Your task to perform on an android device: turn on javascript in the chrome app Image 0: 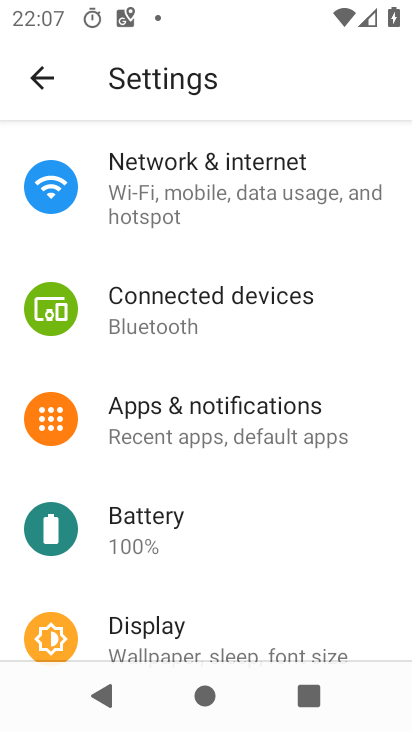
Step 0: click (243, 421)
Your task to perform on an android device: turn on javascript in the chrome app Image 1: 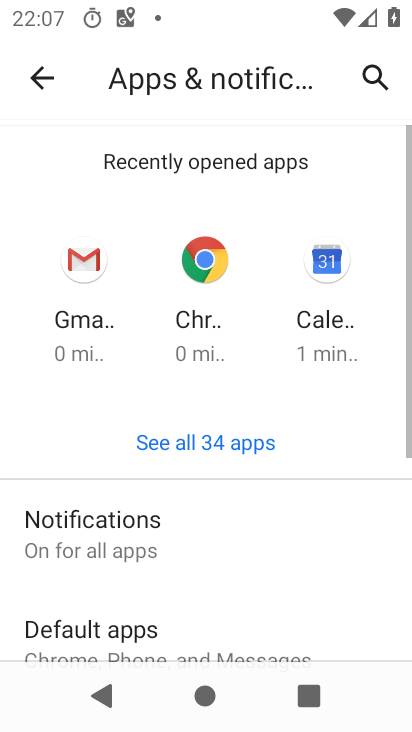
Step 1: press home button
Your task to perform on an android device: turn on javascript in the chrome app Image 2: 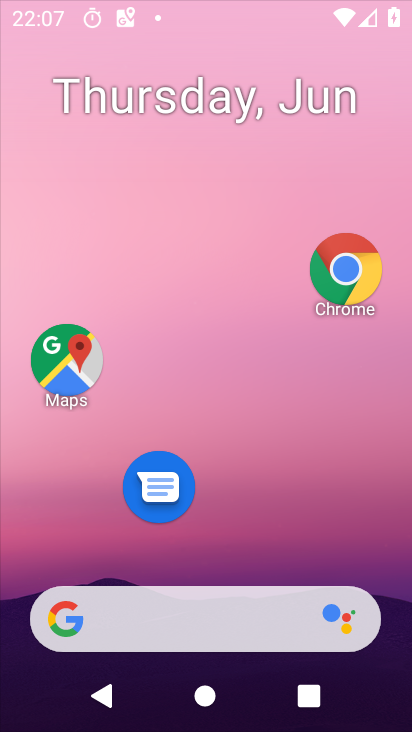
Step 2: drag from (231, 534) to (1, 5)
Your task to perform on an android device: turn on javascript in the chrome app Image 3: 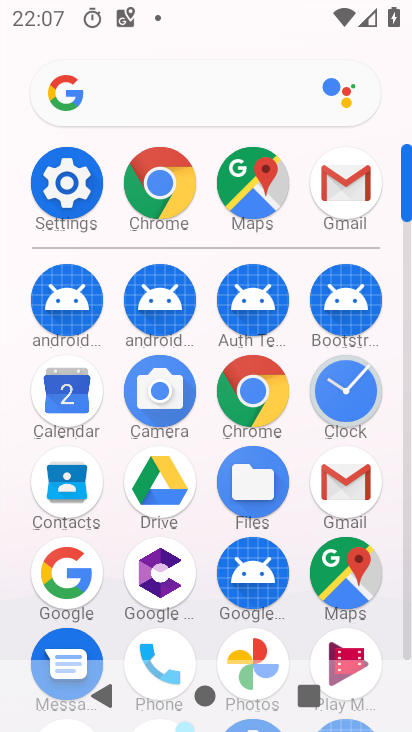
Step 3: click (255, 387)
Your task to perform on an android device: turn on javascript in the chrome app Image 4: 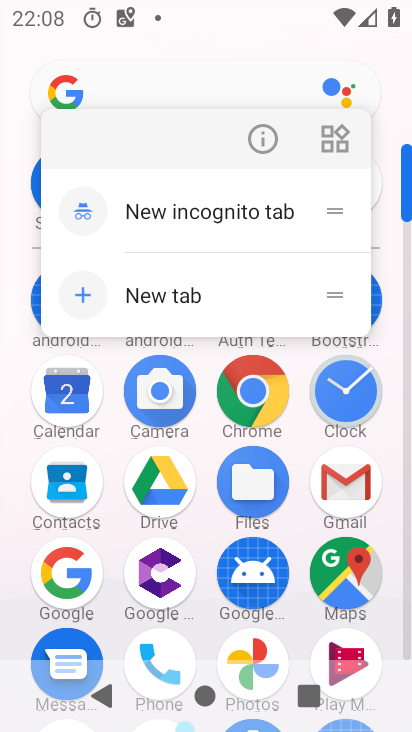
Step 4: click (256, 155)
Your task to perform on an android device: turn on javascript in the chrome app Image 5: 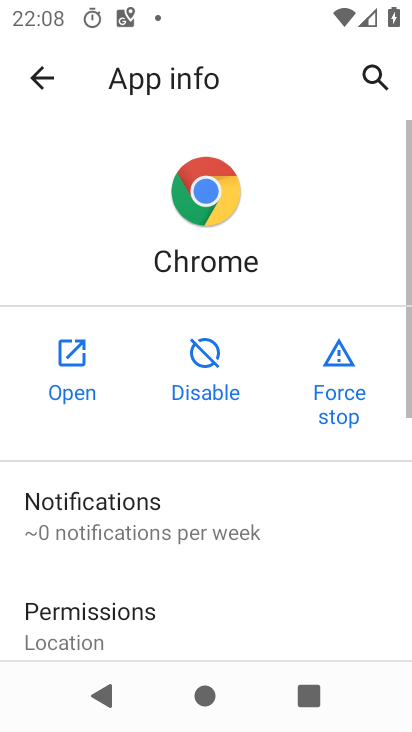
Step 5: click (86, 360)
Your task to perform on an android device: turn on javascript in the chrome app Image 6: 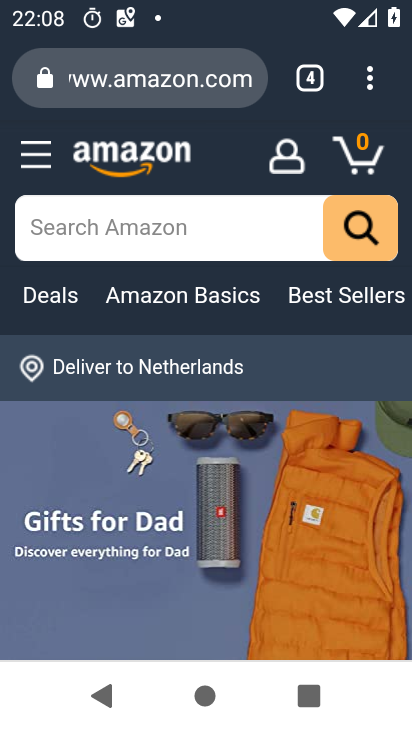
Step 6: click (377, 66)
Your task to perform on an android device: turn on javascript in the chrome app Image 7: 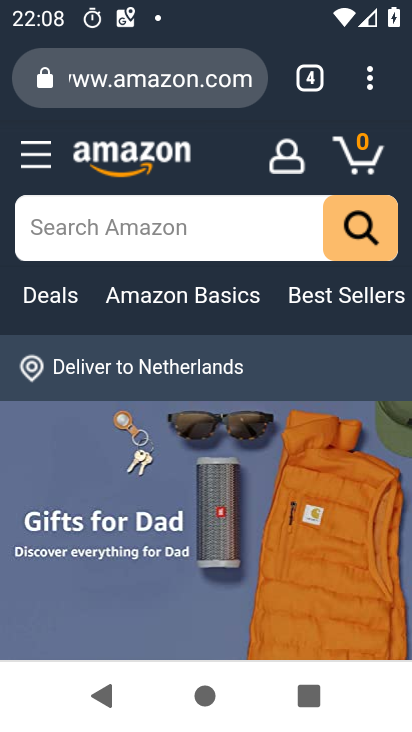
Step 7: drag from (367, 88) to (148, 545)
Your task to perform on an android device: turn on javascript in the chrome app Image 8: 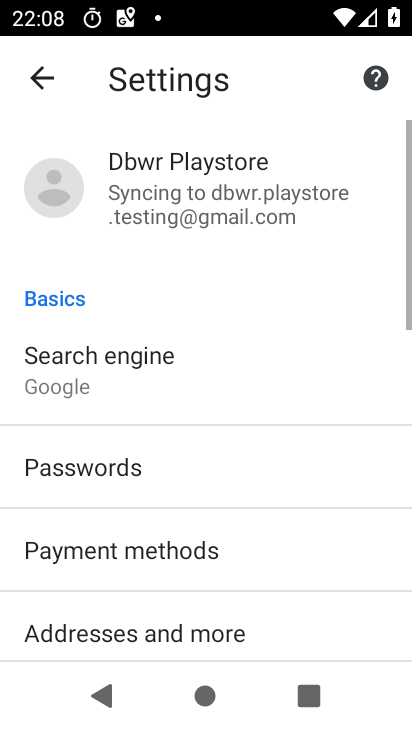
Step 8: drag from (169, 547) to (315, 207)
Your task to perform on an android device: turn on javascript in the chrome app Image 9: 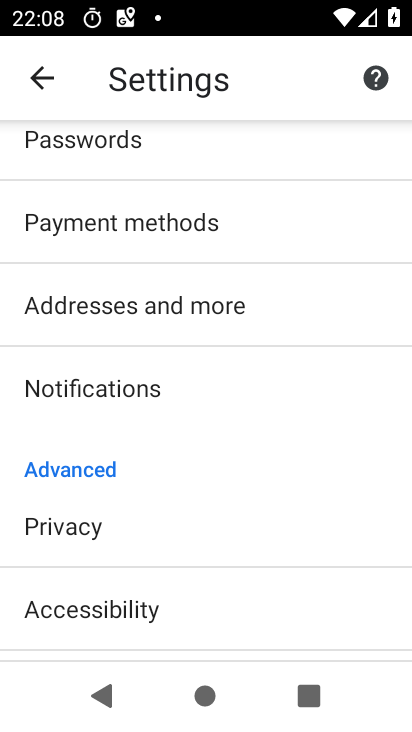
Step 9: drag from (186, 561) to (268, 217)
Your task to perform on an android device: turn on javascript in the chrome app Image 10: 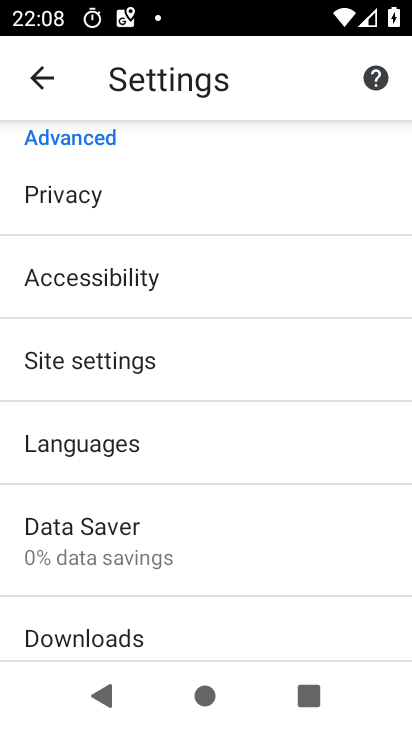
Step 10: click (197, 340)
Your task to perform on an android device: turn on javascript in the chrome app Image 11: 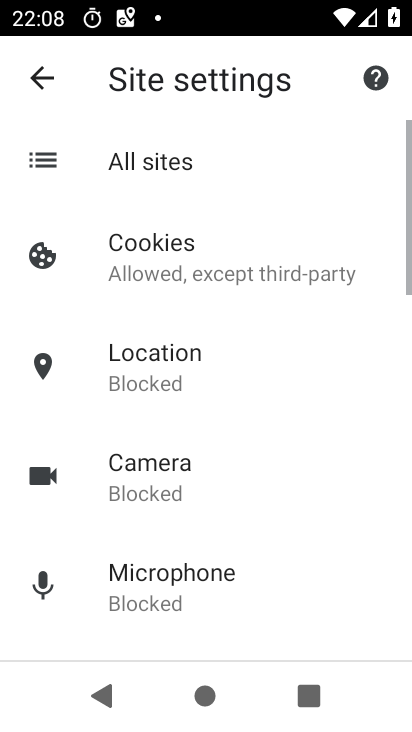
Step 11: drag from (159, 538) to (287, 3)
Your task to perform on an android device: turn on javascript in the chrome app Image 12: 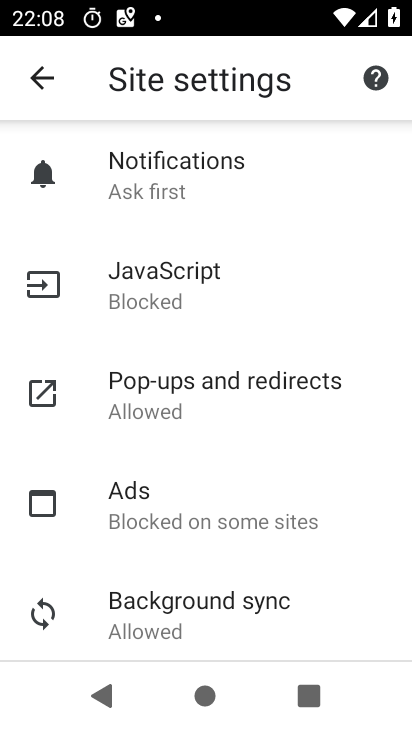
Step 12: drag from (164, 487) to (233, 104)
Your task to perform on an android device: turn on javascript in the chrome app Image 13: 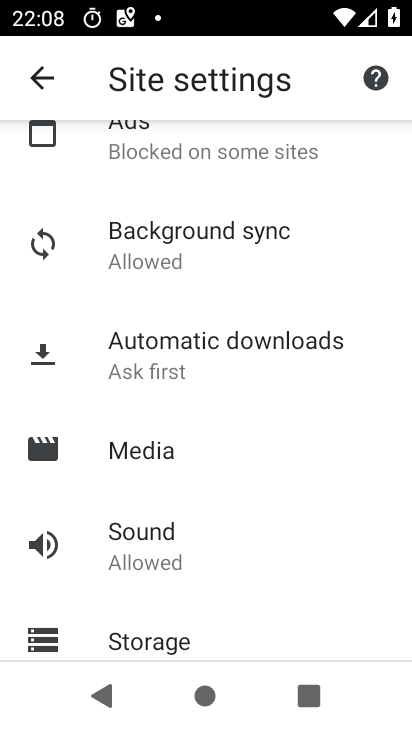
Step 13: drag from (232, 256) to (217, 561)
Your task to perform on an android device: turn on javascript in the chrome app Image 14: 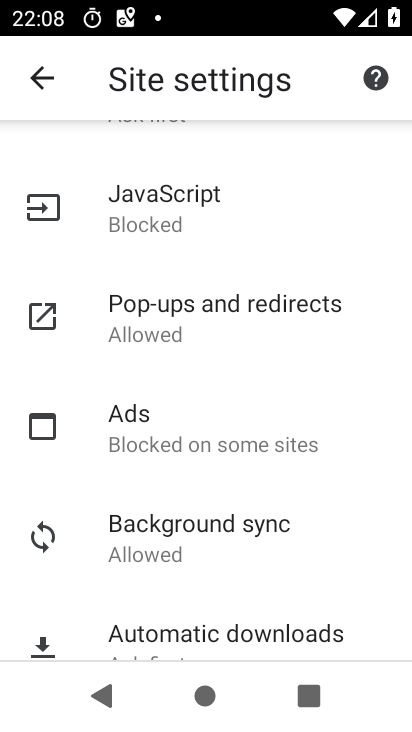
Step 14: click (236, 213)
Your task to perform on an android device: turn on javascript in the chrome app Image 15: 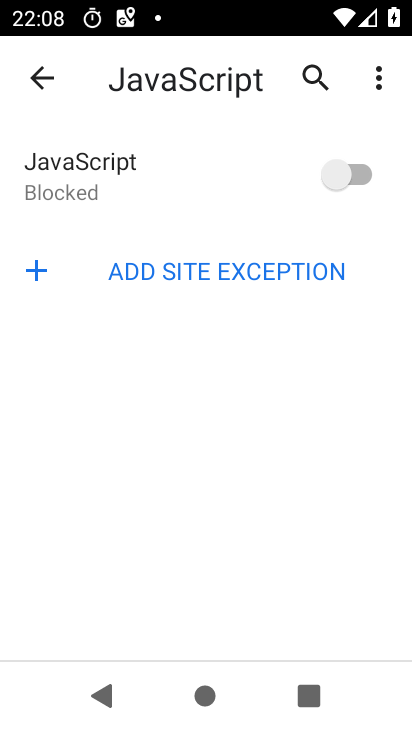
Step 15: click (379, 169)
Your task to perform on an android device: turn on javascript in the chrome app Image 16: 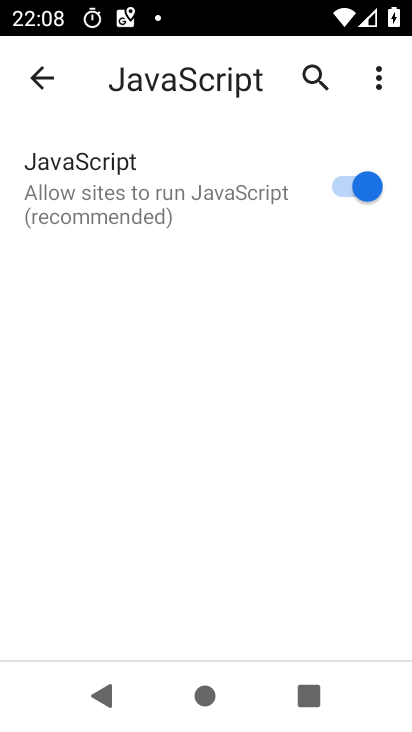
Step 16: task complete